Your task to perform on an android device: View the shopping cart on target. Search for amazon basics triple a on target, select the first entry, add it to the cart, then select checkout. Image 0: 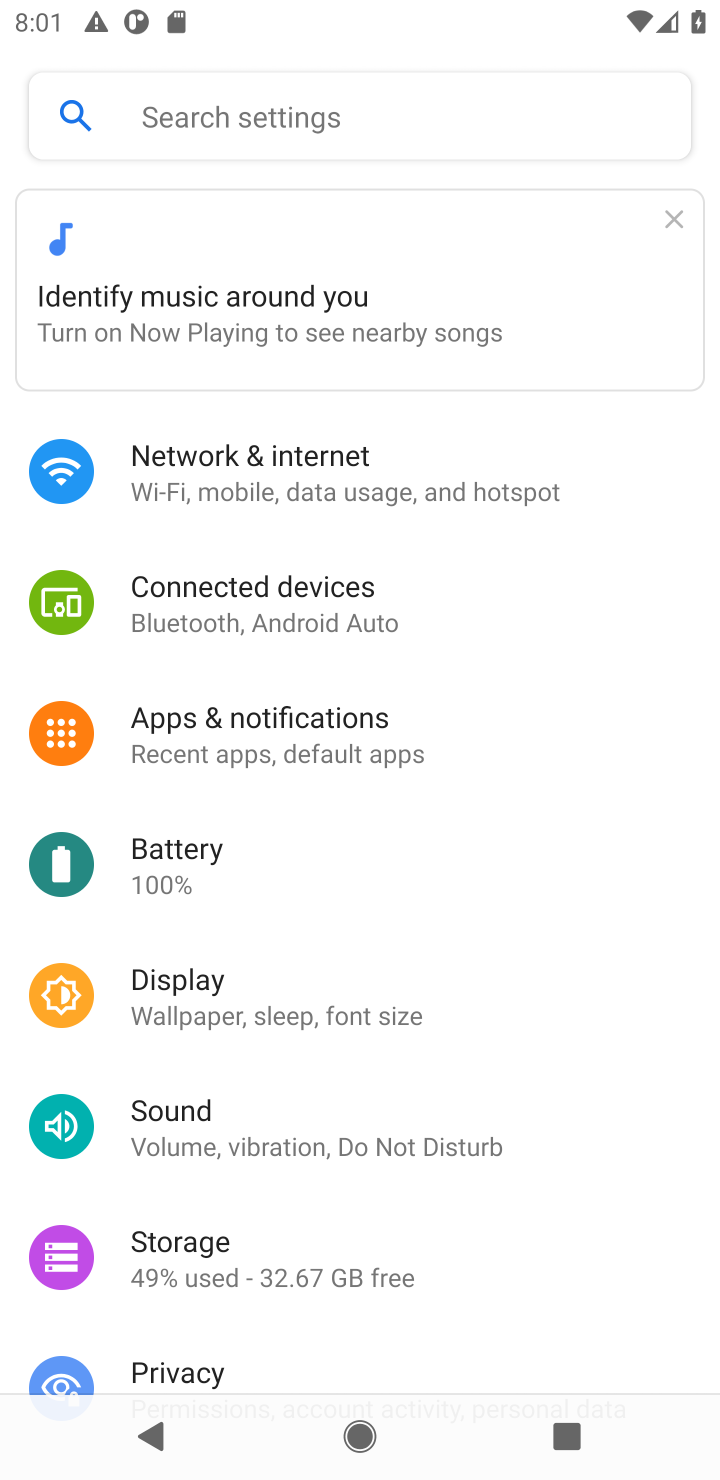
Step 0: press home button
Your task to perform on an android device: View the shopping cart on target. Search for amazon basics triple a on target, select the first entry, add it to the cart, then select checkout. Image 1: 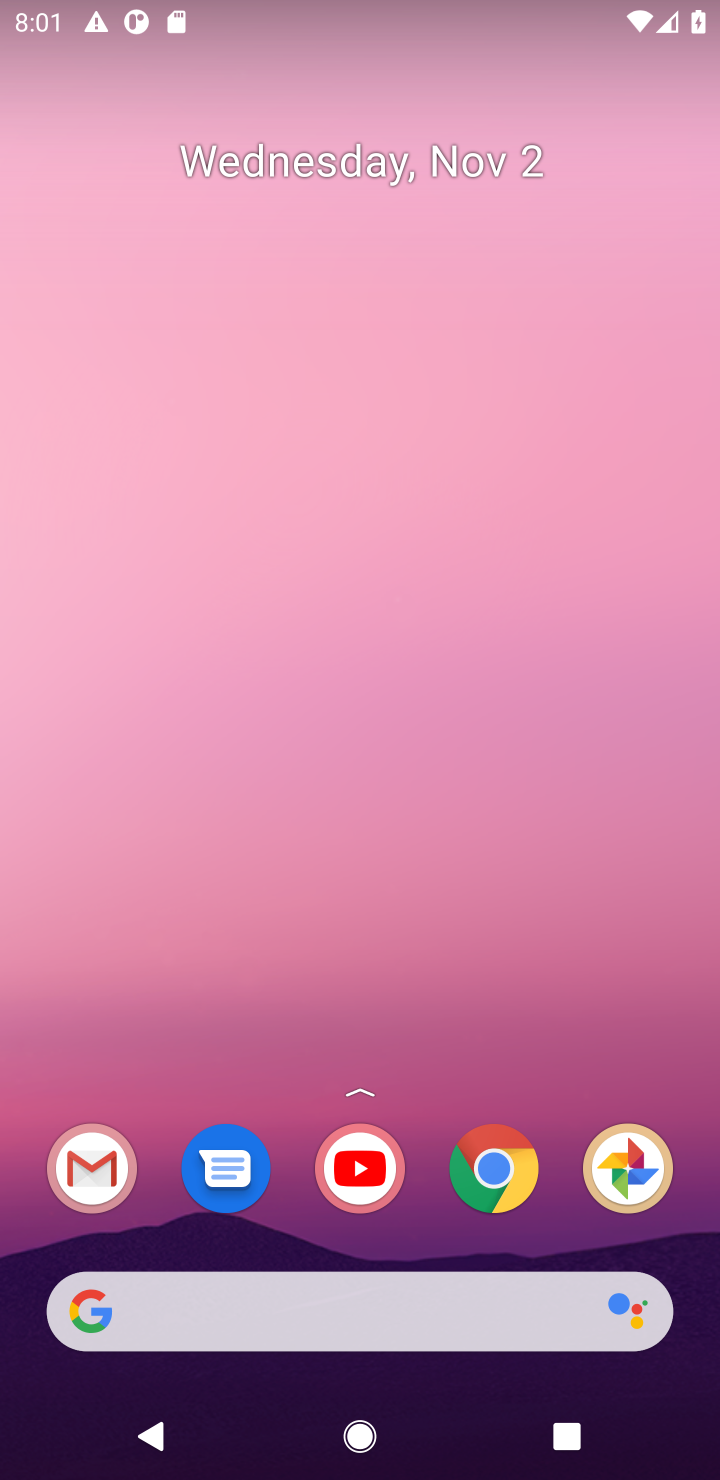
Step 1: click (496, 1169)
Your task to perform on an android device: View the shopping cart on target. Search for amazon basics triple a on target, select the first entry, add it to the cart, then select checkout. Image 2: 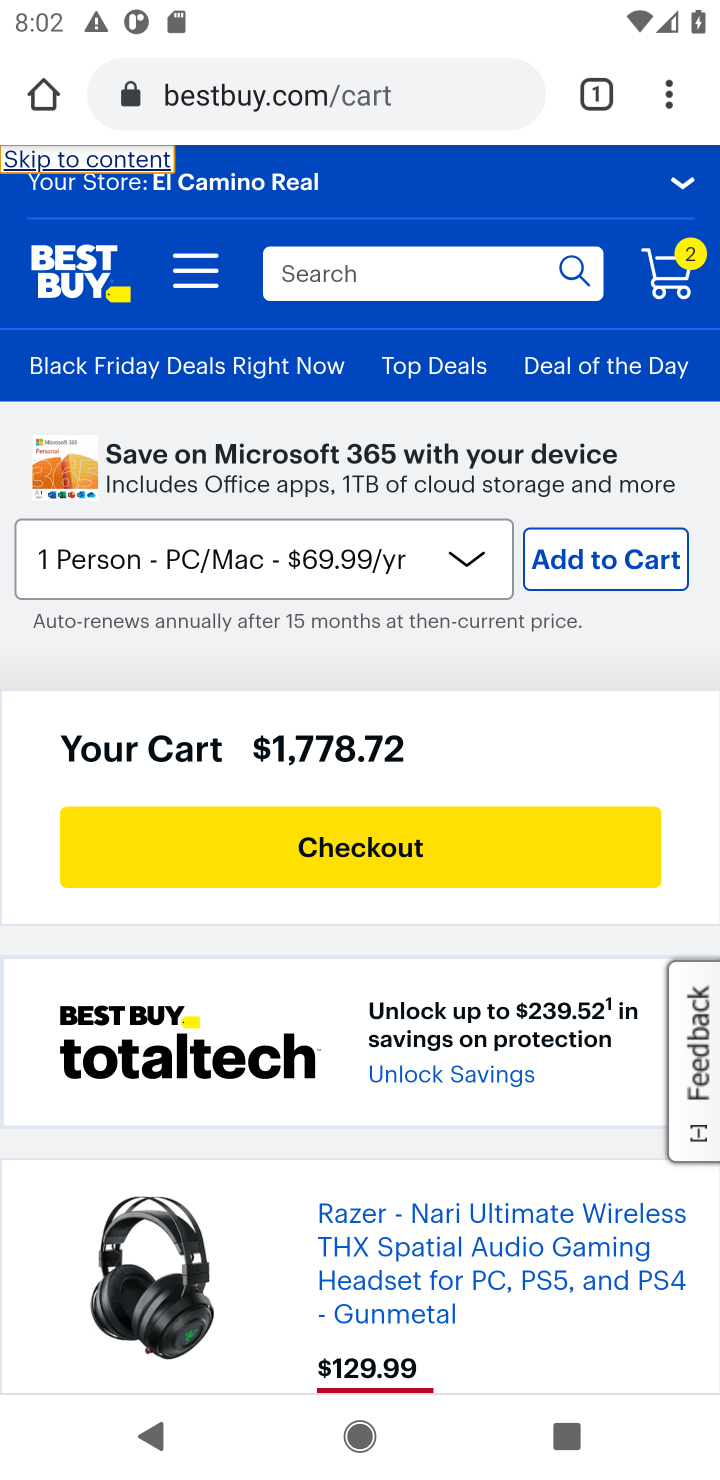
Step 2: click (447, 80)
Your task to perform on an android device: View the shopping cart on target. Search for amazon basics triple a on target, select the first entry, add it to the cart, then select checkout. Image 3: 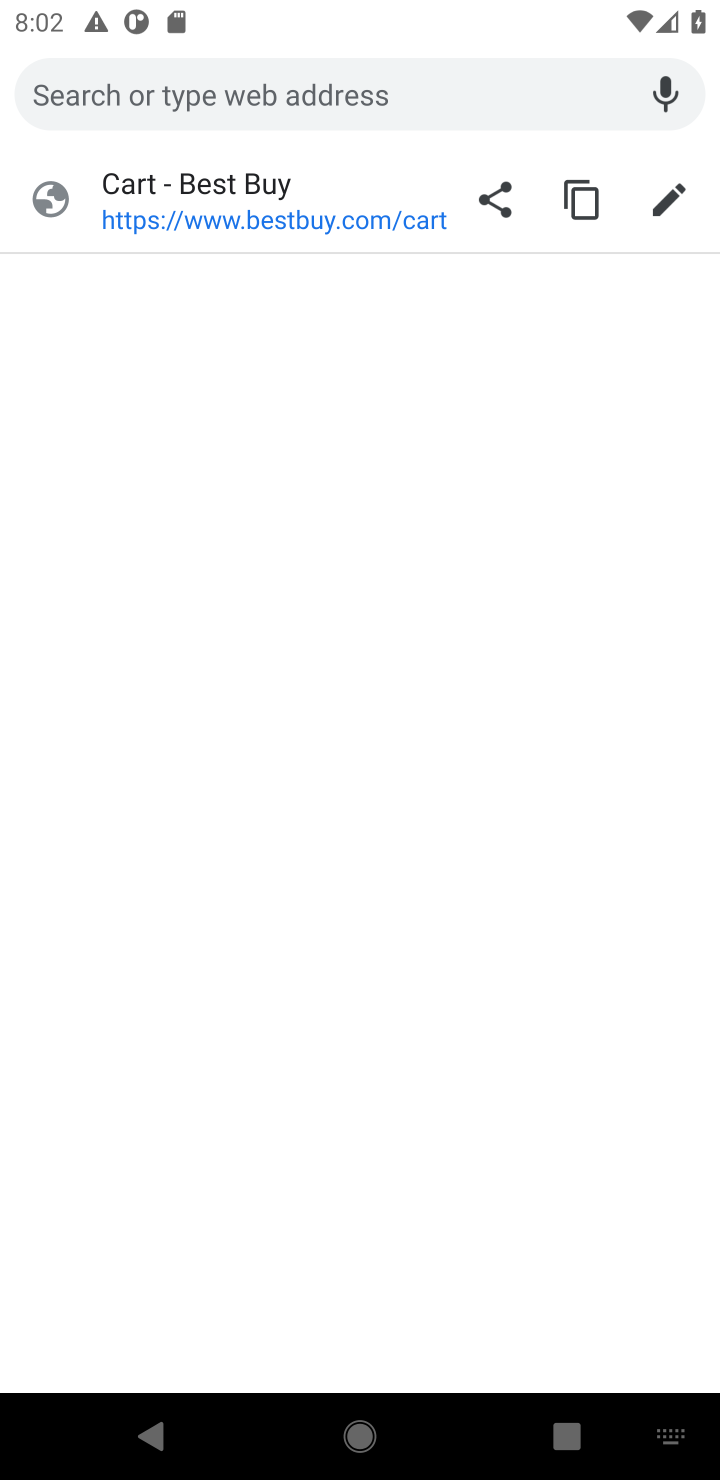
Step 3: type "target"
Your task to perform on an android device: View the shopping cart on target. Search for amazon basics triple a on target, select the first entry, add it to the cart, then select checkout. Image 4: 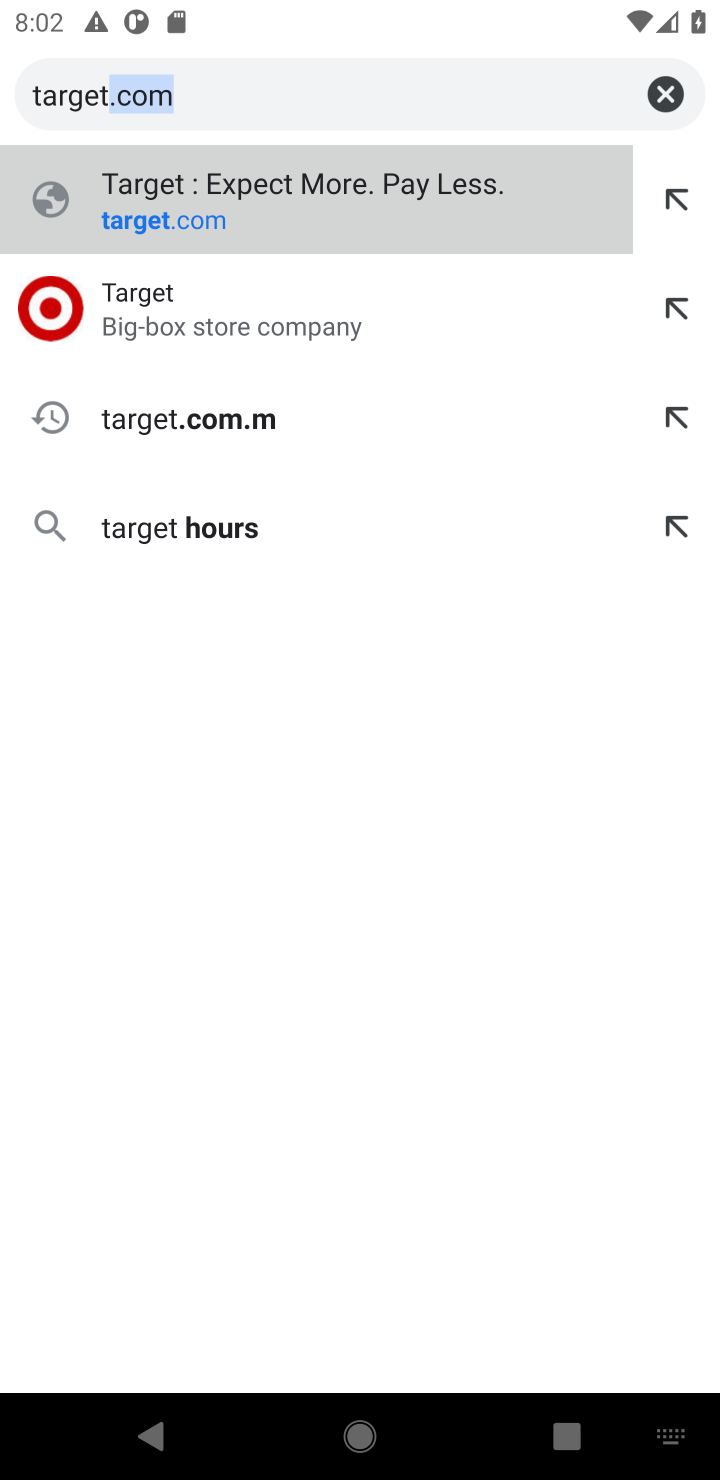
Step 4: click (231, 342)
Your task to perform on an android device: View the shopping cart on target. Search for amazon basics triple a on target, select the first entry, add it to the cart, then select checkout. Image 5: 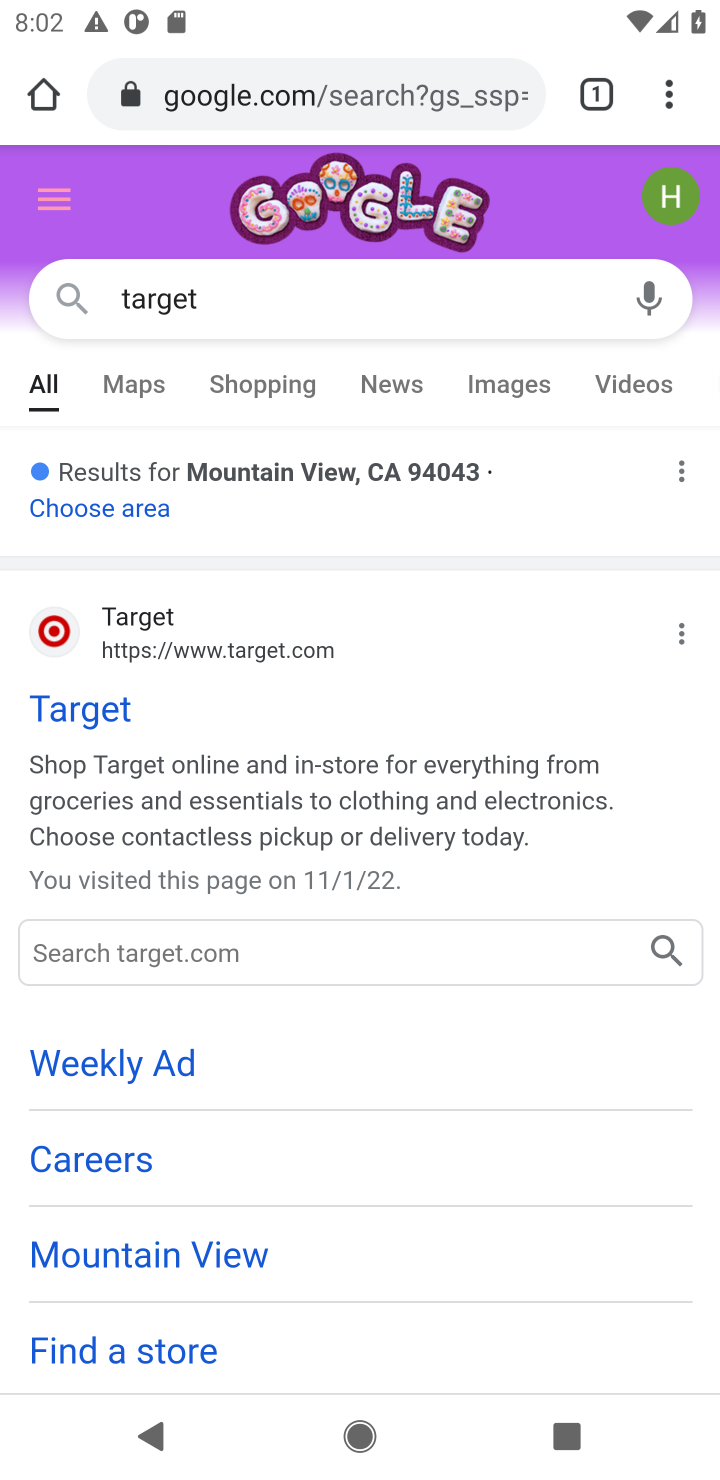
Step 5: click (212, 708)
Your task to perform on an android device: View the shopping cart on target. Search for amazon basics triple a on target, select the first entry, add it to the cart, then select checkout. Image 6: 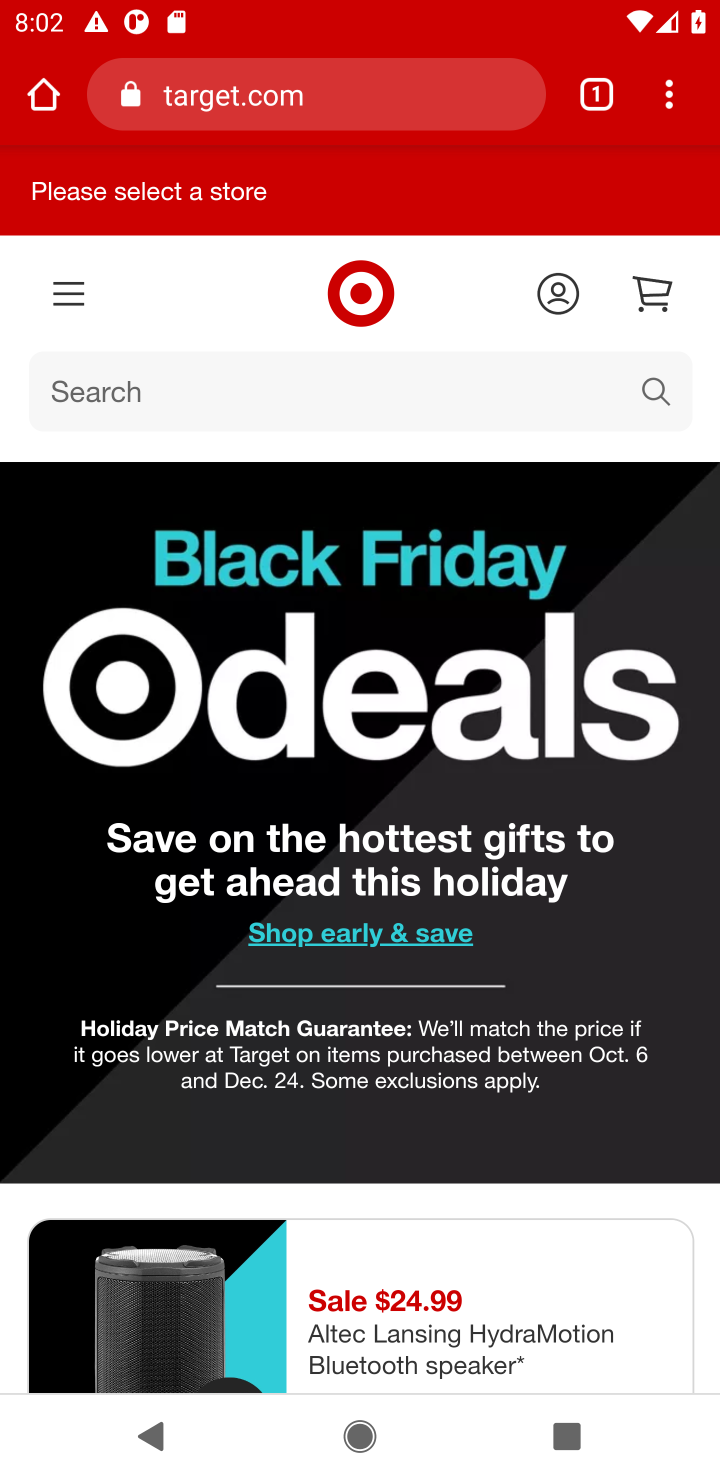
Step 6: click (672, 288)
Your task to perform on an android device: View the shopping cart on target. Search for amazon basics triple a on target, select the first entry, add it to the cart, then select checkout. Image 7: 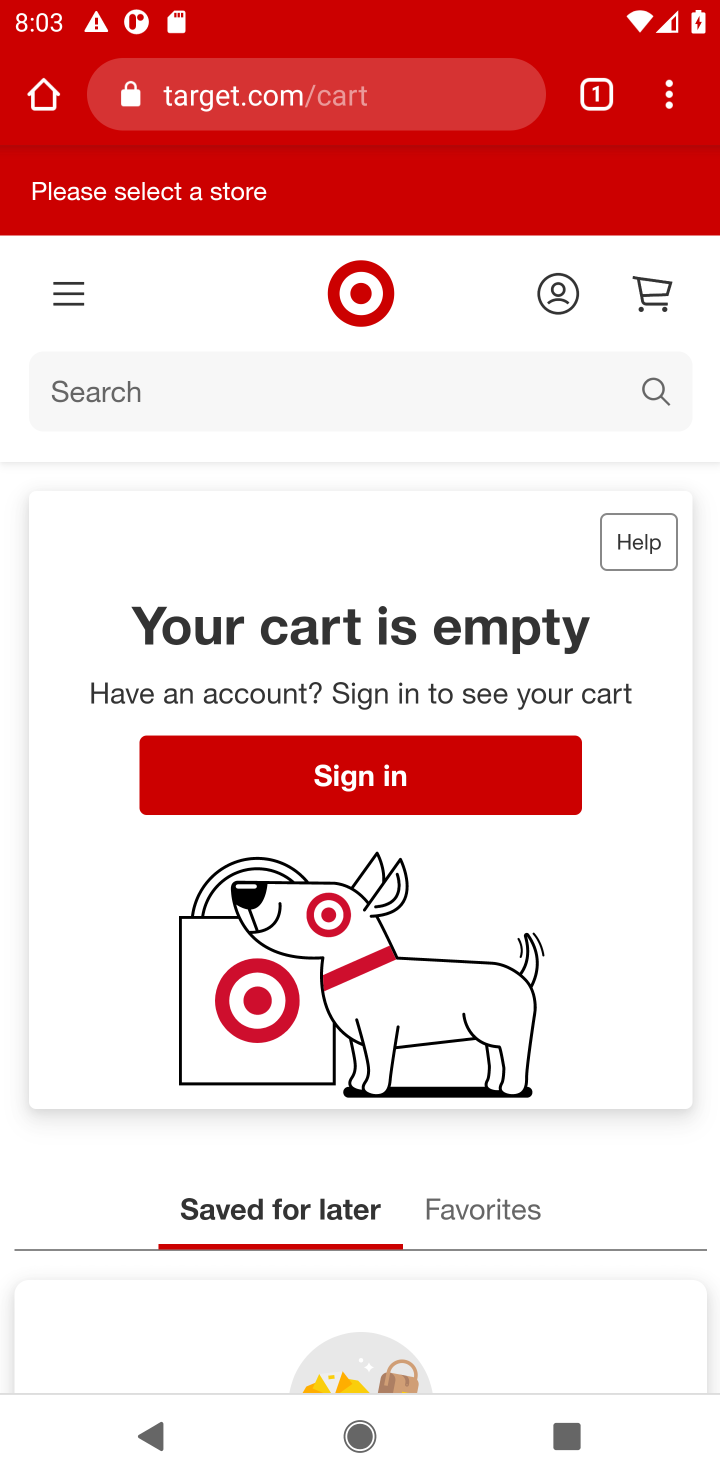
Step 7: click (297, 403)
Your task to perform on an android device: View the shopping cart on target. Search for amazon basics triple a on target, select the first entry, add it to the cart, then select checkout. Image 8: 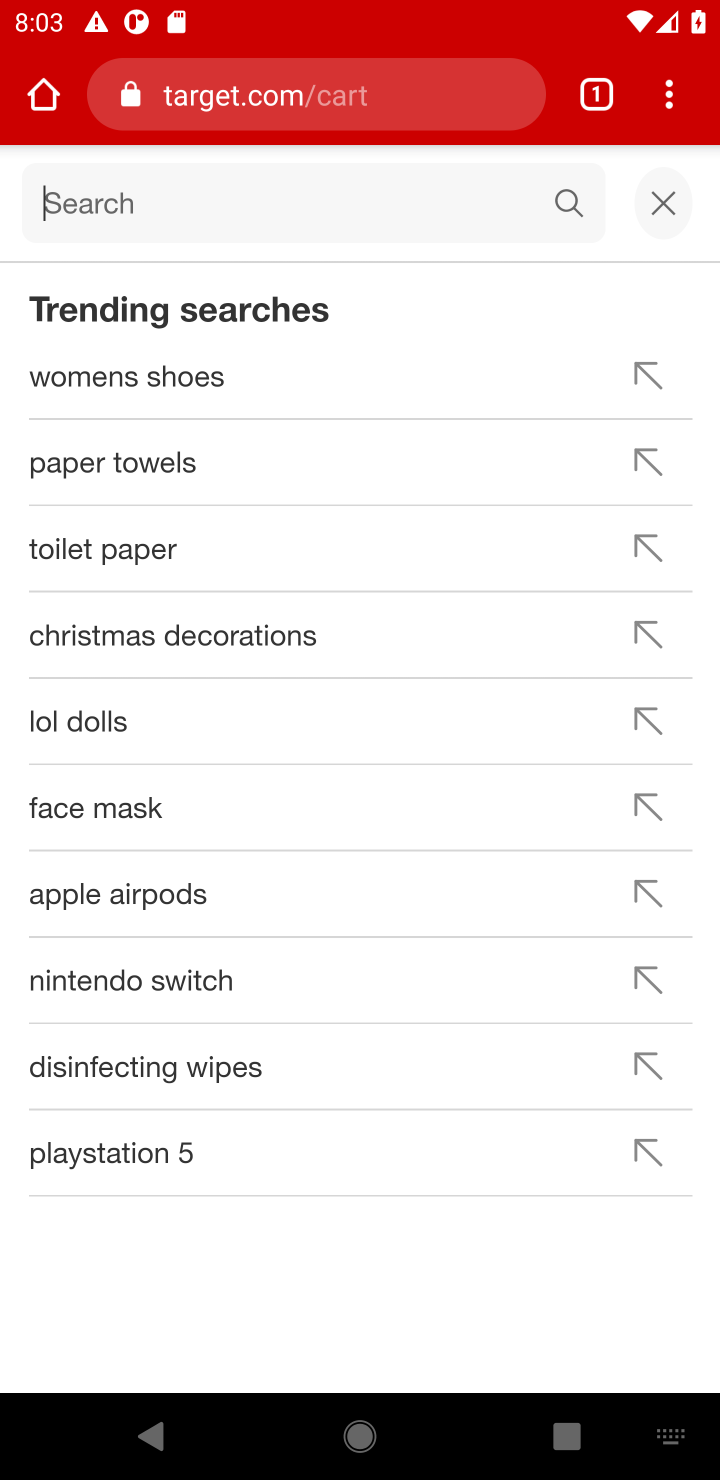
Step 8: type "amazon basics triple a"
Your task to perform on an android device: View the shopping cart on target. Search for amazon basics triple a on target, select the first entry, add it to the cart, then select checkout. Image 9: 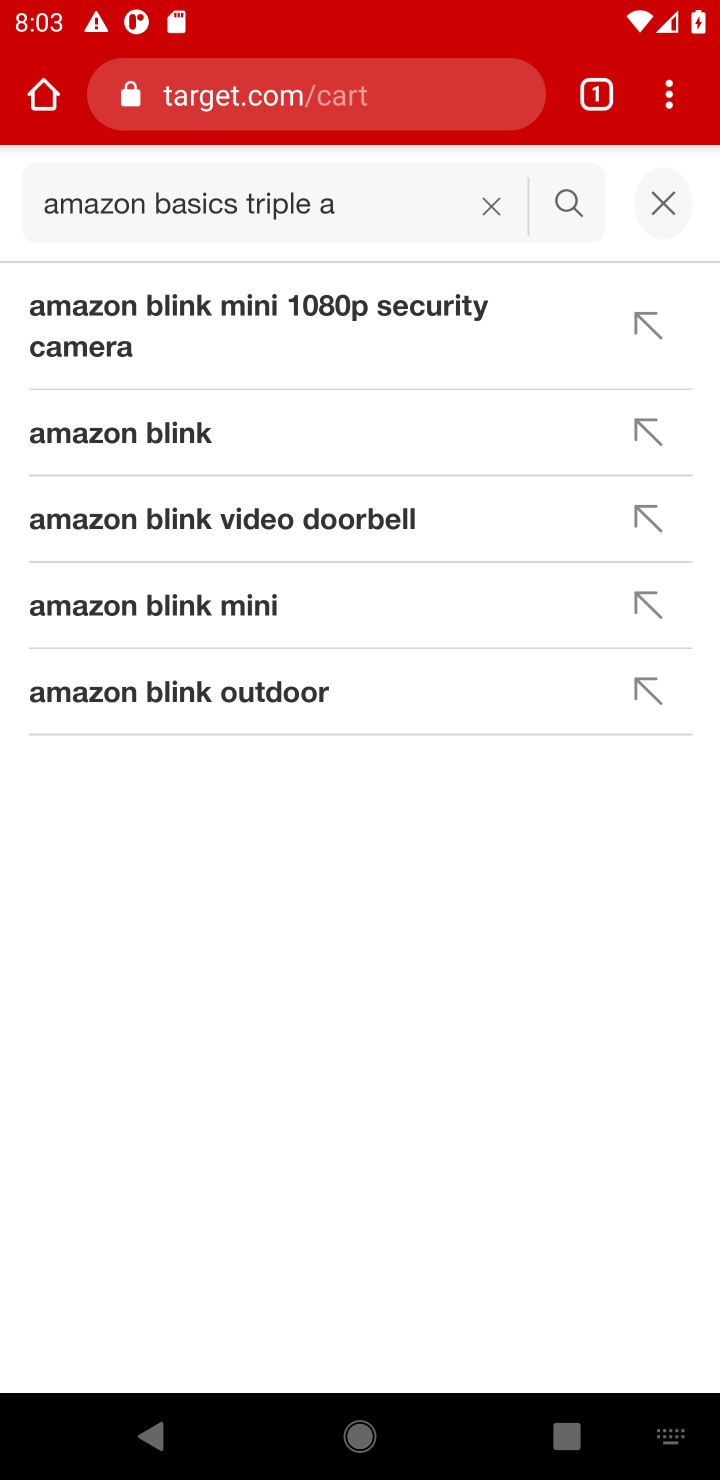
Step 9: click (567, 198)
Your task to perform on an android device: View the shopping cart on target. Search for amazon basics triple a on target, select the first entry, add it to the cart, then select checkout. Image 10: 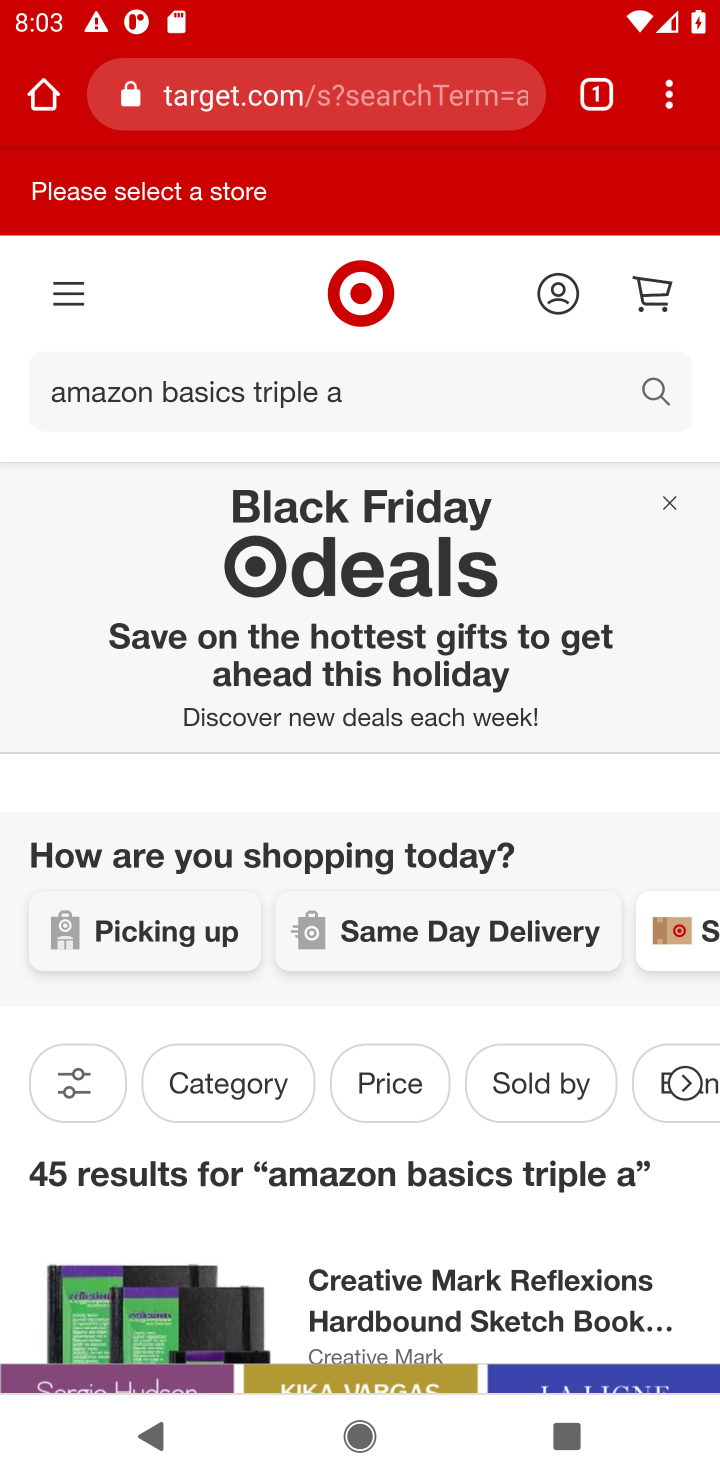
Step 10: drag from (487, 1021) to (534, 484)
Your task to perform on an android device: View the shopping cart on target. Search for amazon basics triple a on target, select the first entry, add it to the cart, then select checkout. Image 11: 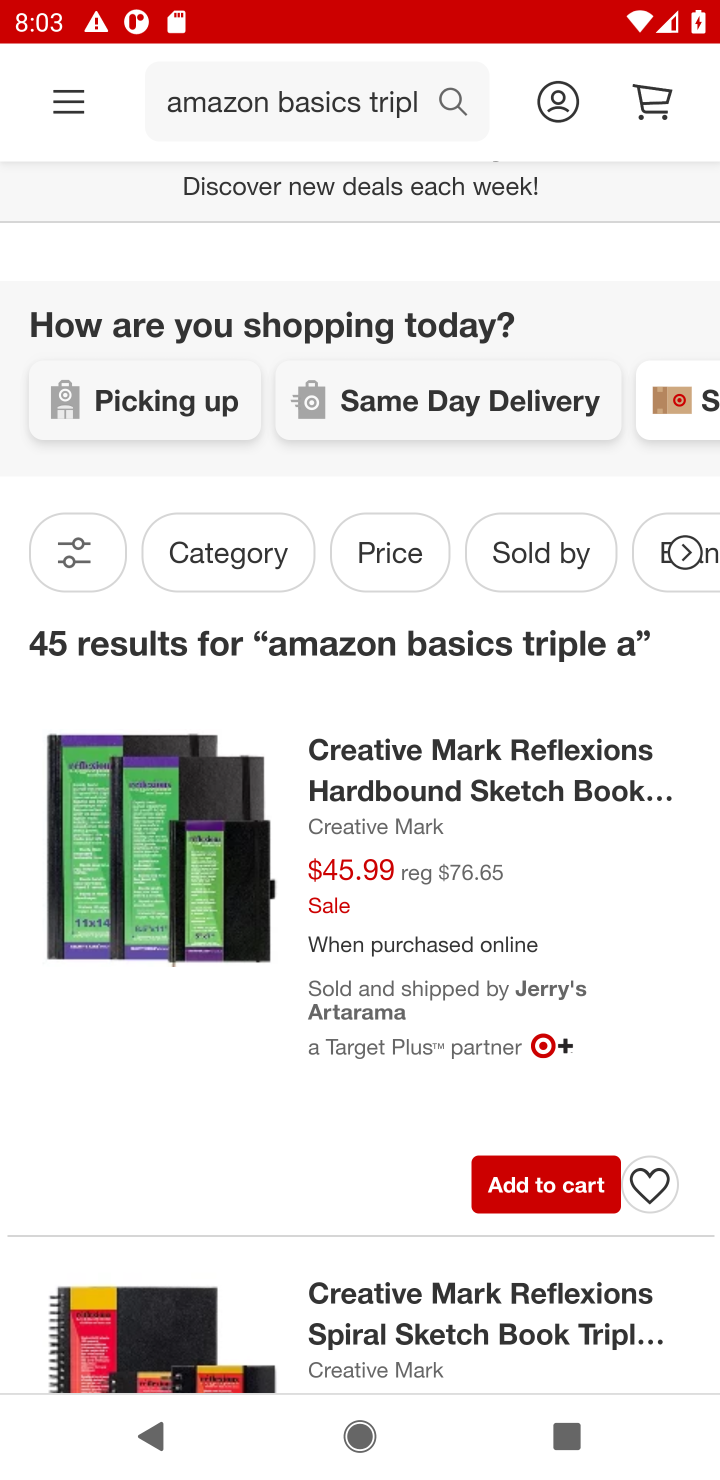
Step 11: click (548, 1193)
Your task to perform on an android device: View the shopping cart on target. Search for amazon basics triple a on target, select the first entry, add it to the cart, then select checkout. Image 12: 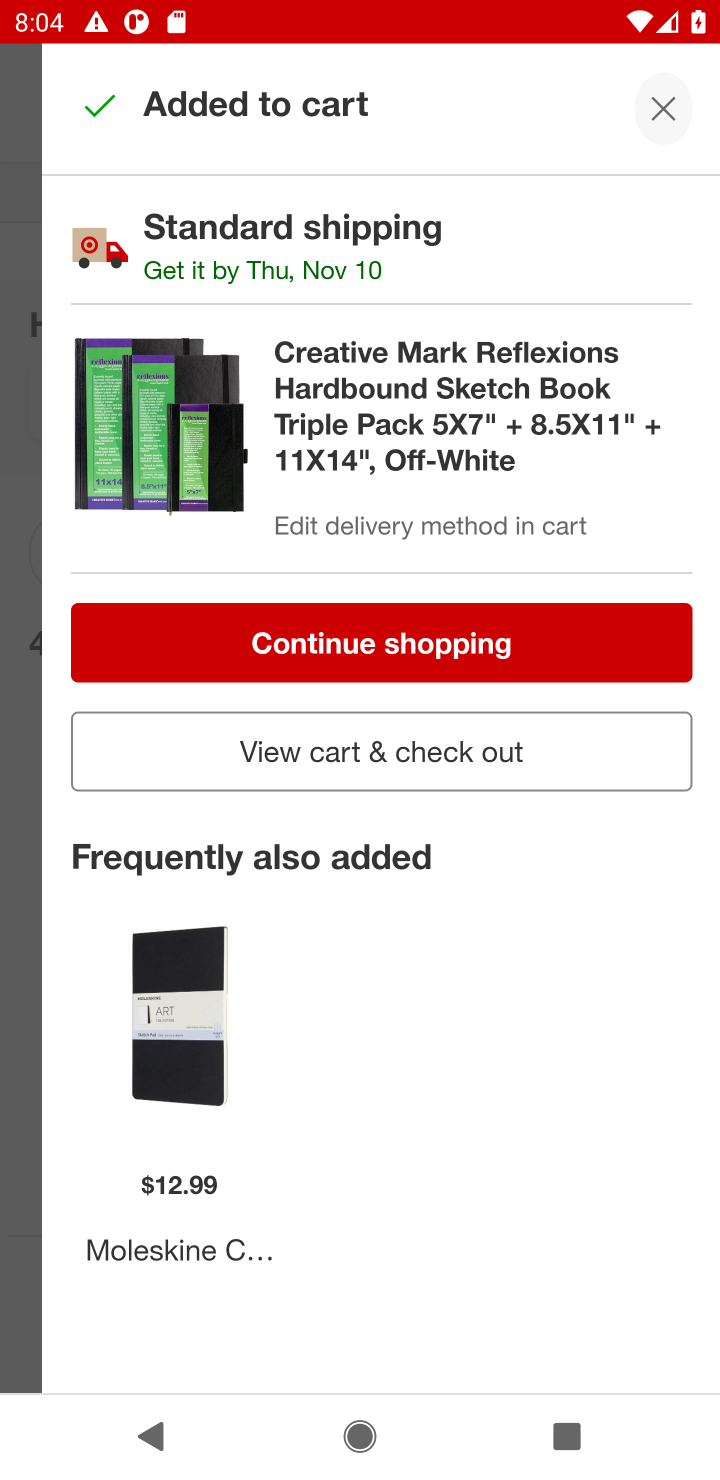
Step 12: click (452, 742)
Your task to perform on an android device: View the shopping cart on target. Search for amazon basics triple a on target, select the first entry, add it to the cart, then select checkout. Image 13: 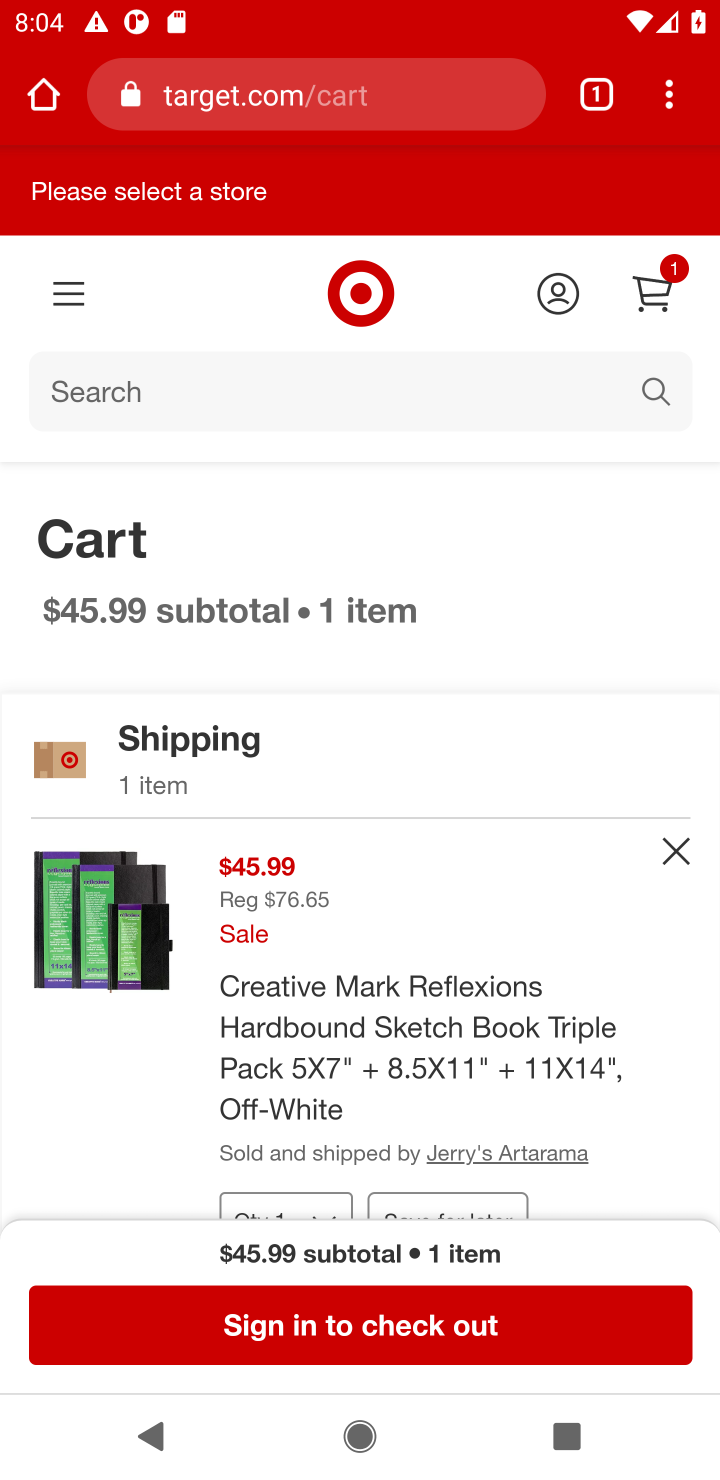
Step 13: click (337, 1327)
Your task to perform on an android device: View the shopping cart on target. Search for amazon basics triple a on target, select the first entry, add it to the cart, then select checkout. Image 14: 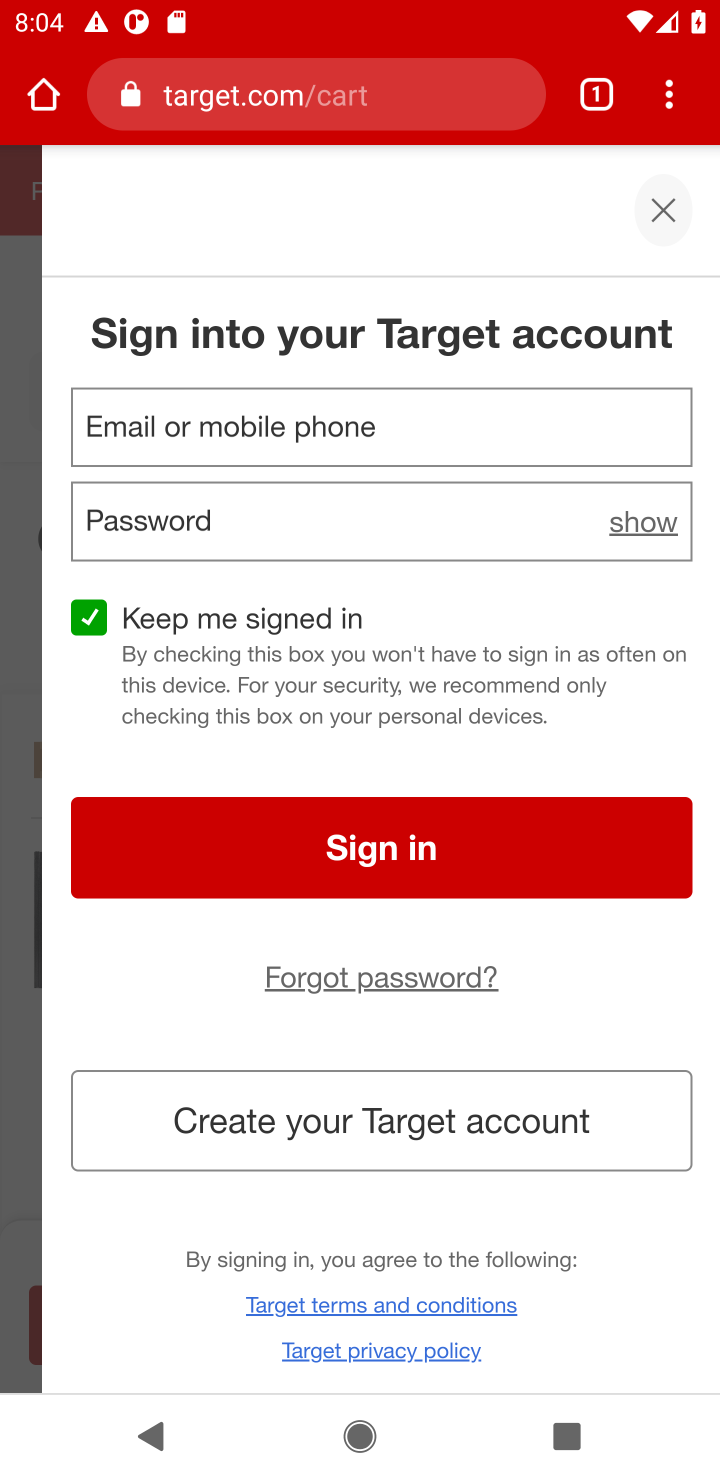
Step 14: task complete